Your task to perform on an android device: turn off sleep mode Image 0: 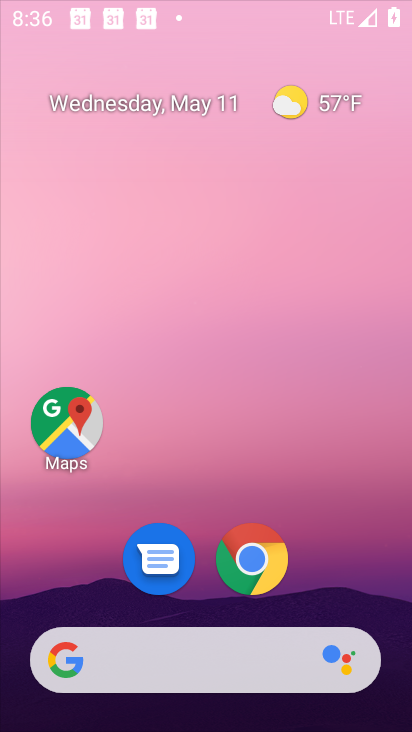
Step 0: press home button
Your task to perform on an android device: turn off sleep mode Image 1: 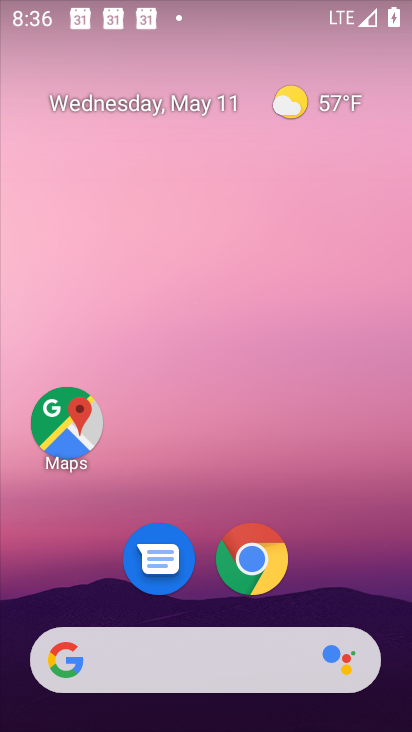
Step 1: drag from (344, 573) to (310, 0)
Your task to perform on an android device: turn off sleep mode Image 2: 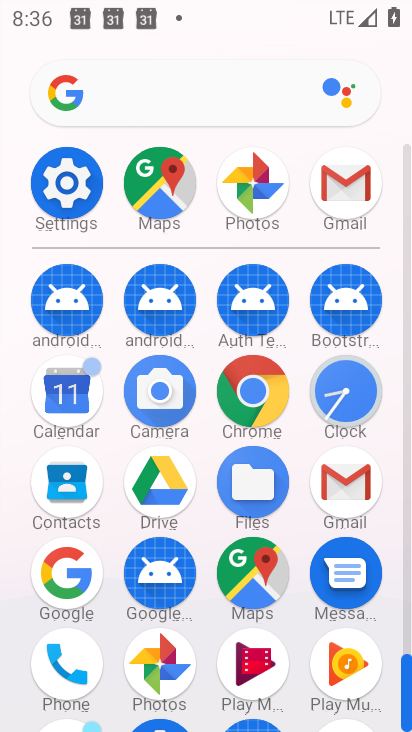
Step 2: click (43, 190)
Your task to perform on an android device: turn off sleep mode Image 3: 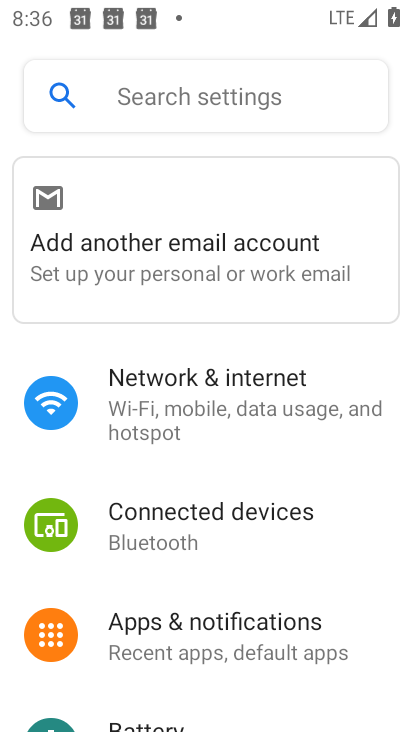
Step 3: drag from (252, 572) to (252, 180)
Your task to perform on an android device: turn off sleep mode Image 4: 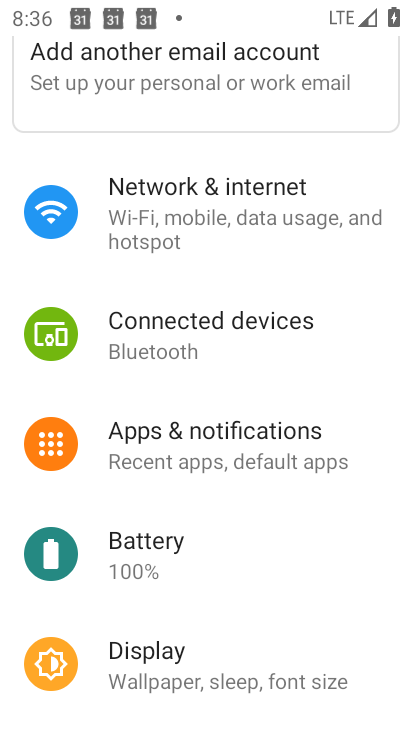
Step 4: click (179, 658)
Your task to perform on an android device: turn off sleep mode Image 5: 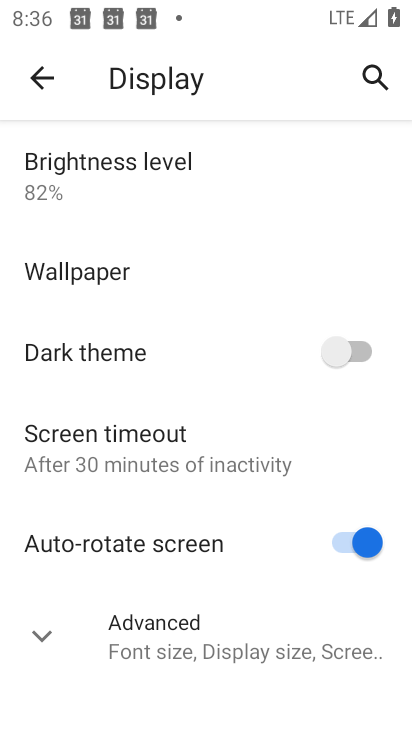
Step 5: task complete